Your task to perform on an android device: Open Google Image 0: 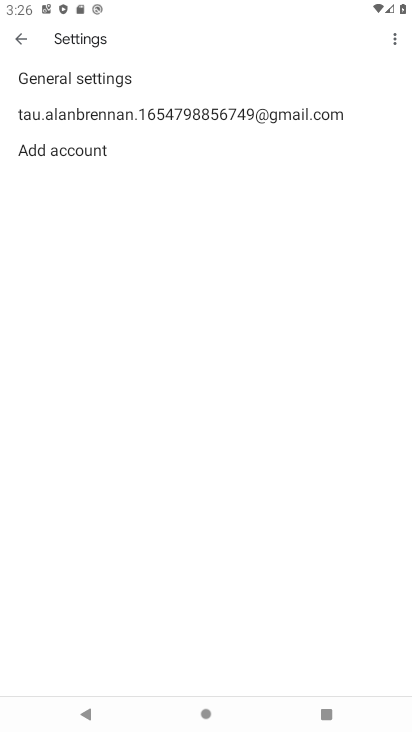
Step 0: press home button
Your task to perform on an android device: Open Google Image 1: 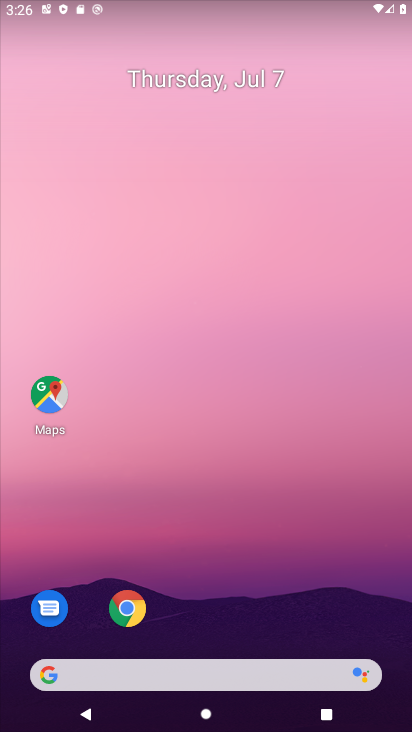
Step 1: click (128, 609)
Your task to perform on an android device: Open Google Image 2: 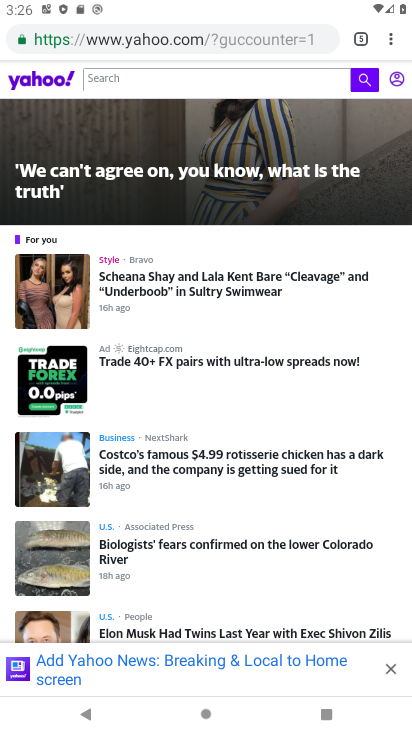
Step 2: task complete